Your task to perform on an android device: Open Google Maps and go to "Timeline" Image 0: 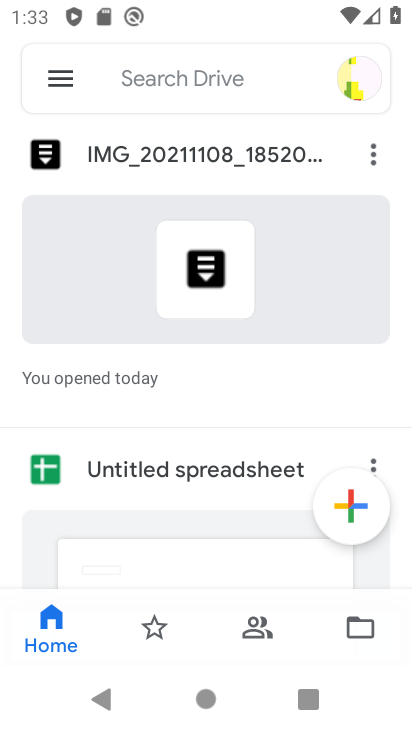
Step 0: press home button
Your task to perform on an android device: Open Google Maps and go to "Timeline" Image 1: 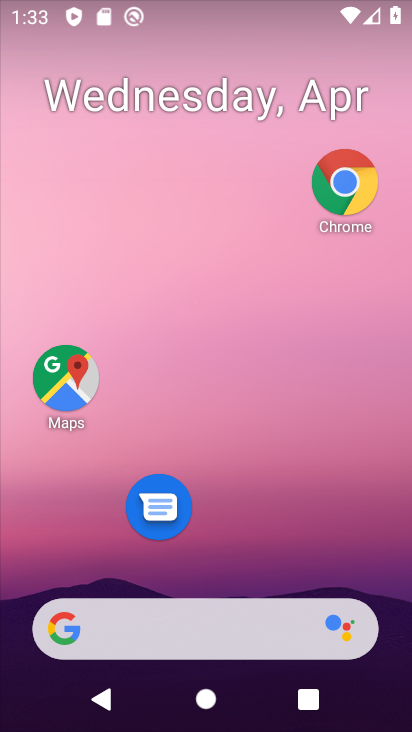
Step 1: click (70, 383)
Your task to perform on an android device: Open Google Maps and go to "Timeline" Image 2: 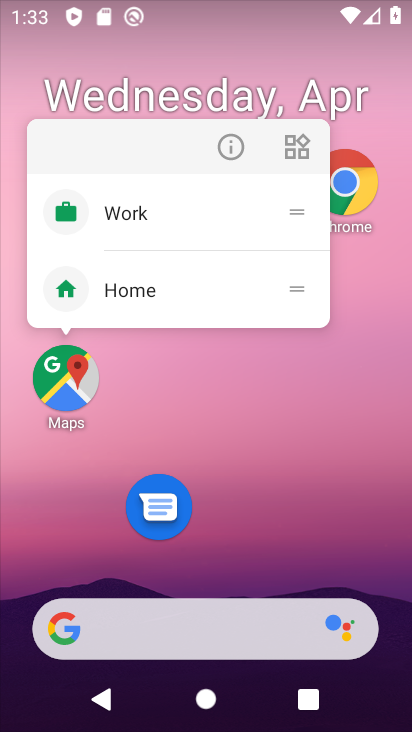
Step 2: click (60, 387)
Your task to perform on an android device: Open Google Maps and go to "Timeline" Image 3: 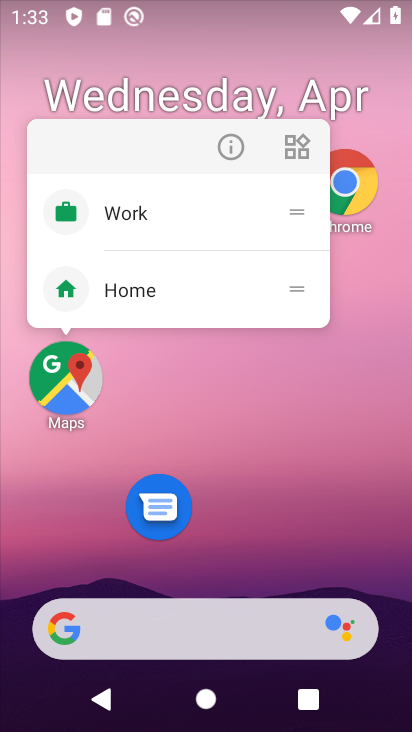
Step 3: click (60, 387)
Your task to perform on an android device: Open Google Maps and go to "Timeline" Image 4: 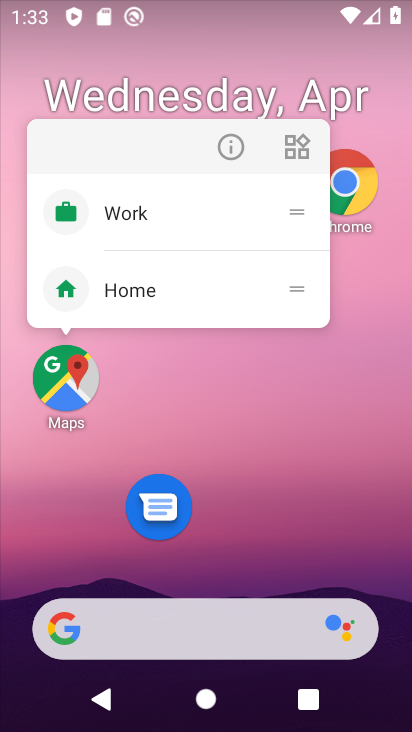
Step 4: click (60, 387)
Your task to perform on an android device: Open Google Maps and go to "Timeline" Image 5: 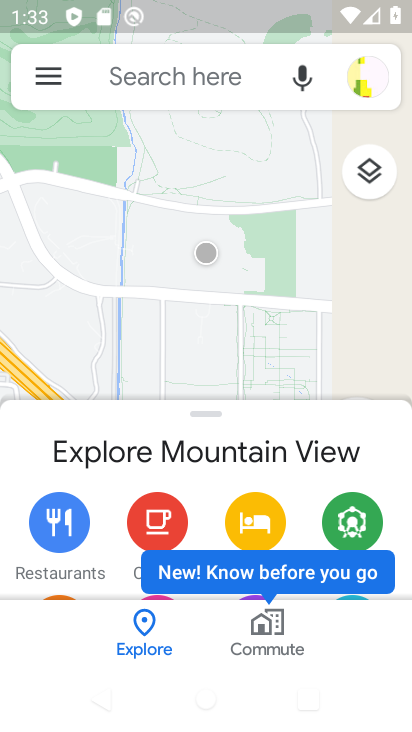
Step 5: click (49, 66)
Your task to perform on an android device: Open Google Maps and go to "Timeline" Image 6: 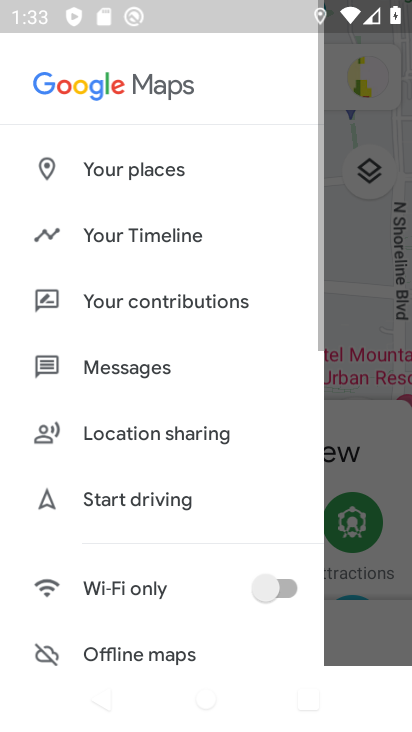
Step 6: click (148, 234)
Your task to perform on an android device: Open Google Maps and go to "Timeline" Image 7: 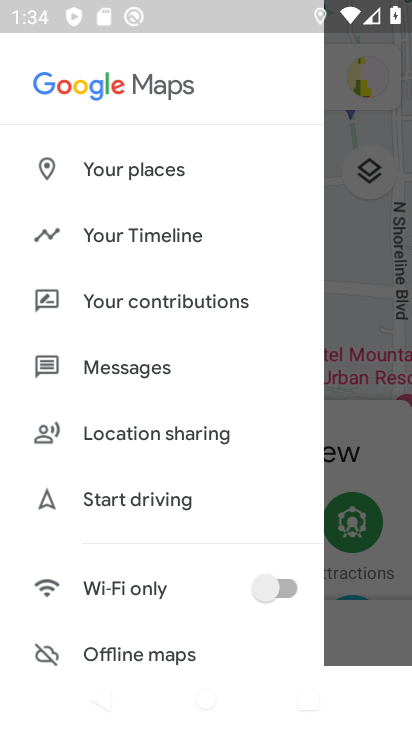
Step 7: click (190, 229)
Your task to perform on an android device: Open Google Maps and go to "Timeline" Image 8: 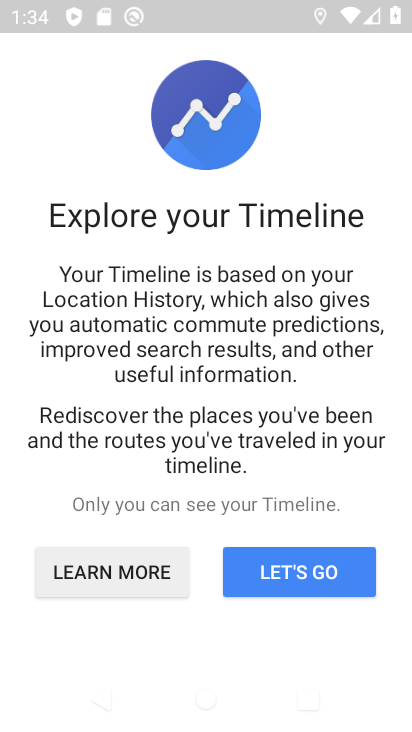
Step 8: click (321, 146)
Your task to perform on an android device: Open Google Maps and go to "Timeline" Image 9: 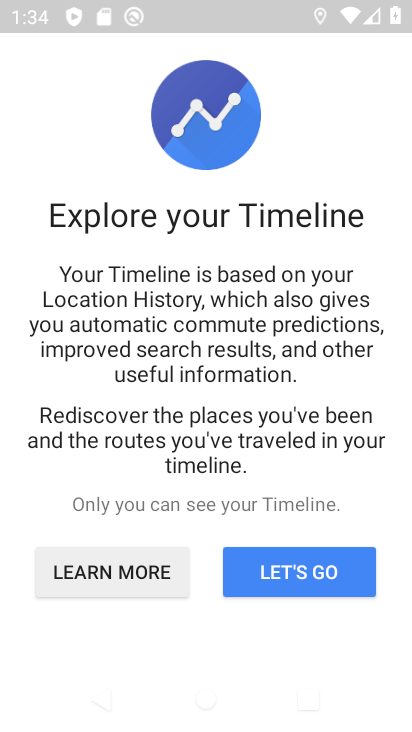
Step 9: click (202, 623)
Your task to perform on an android device: Open Google Maps and go to "Timeline" Image 10: 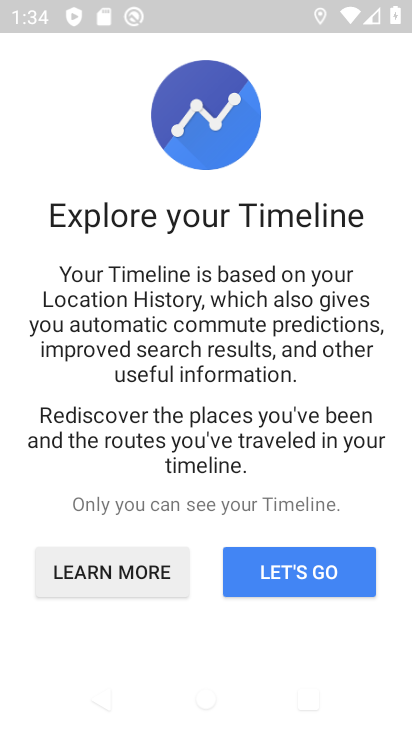
Step 10: task complete